Your task to perform on an android device: change notifications settings Image 0: 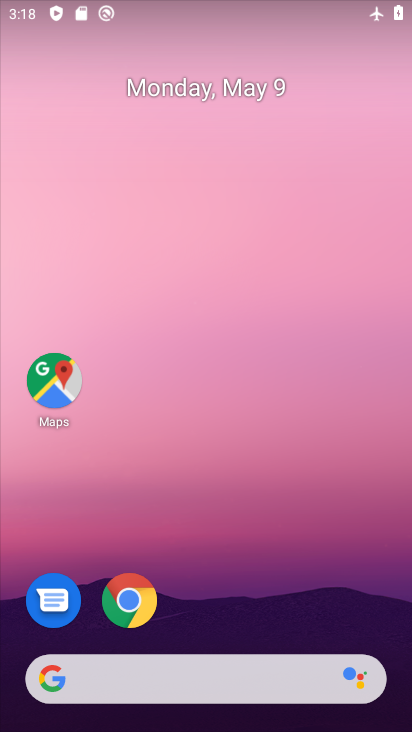
Step 0: drag from (233, 577) to (283, 159)
Your task to perform on an android device: change notifications settings Image 1: 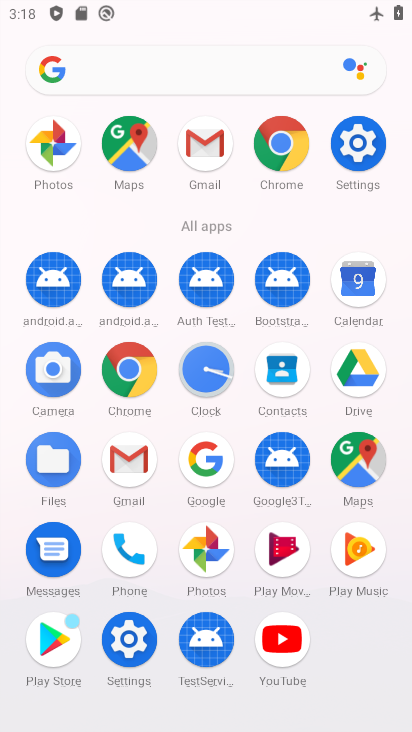
Step 1: click (131, 645)
Your task to perform on an android device: change notifications settings Image 2: 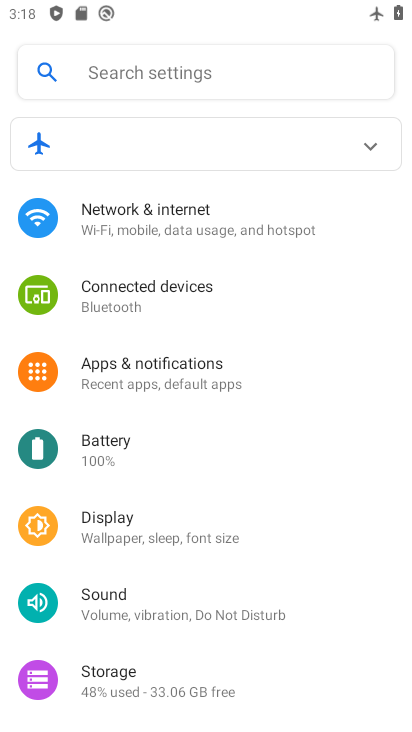
Step 2: click (194, 391)
Your task to perform on an android device: change notifications settings Image 3: 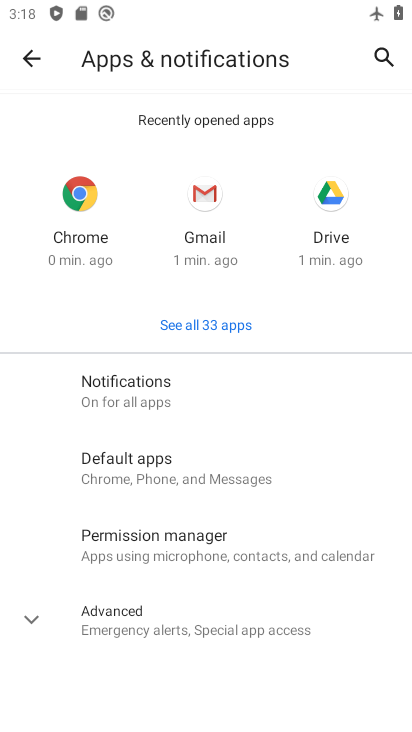
Step 3: click (184, 420)
Your task to perform on an android device: change notifications settings Image 4: 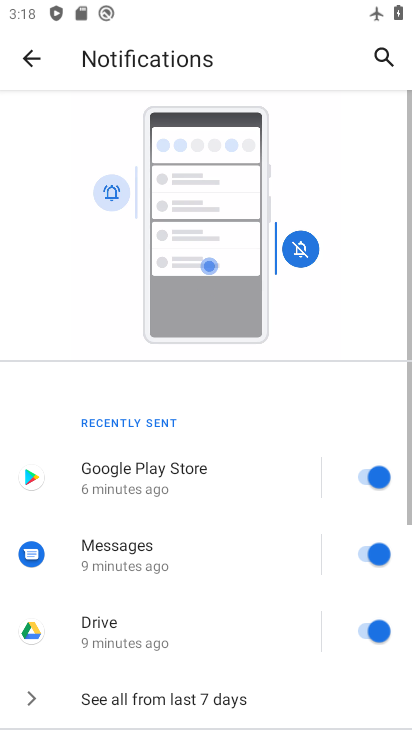
Step 4: drag from (312, 491) to (382, 247)
Your task to perform on an android device: change notifications settings Image 5: 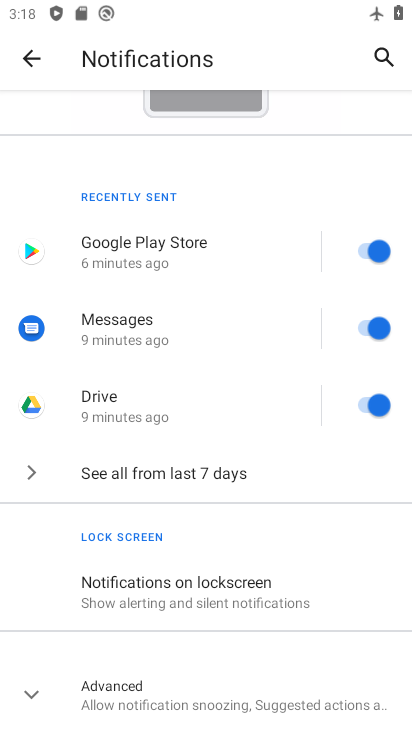
Step 5: click (368, 253)
Your task to perform on an android device: change notifications settings Image 6: 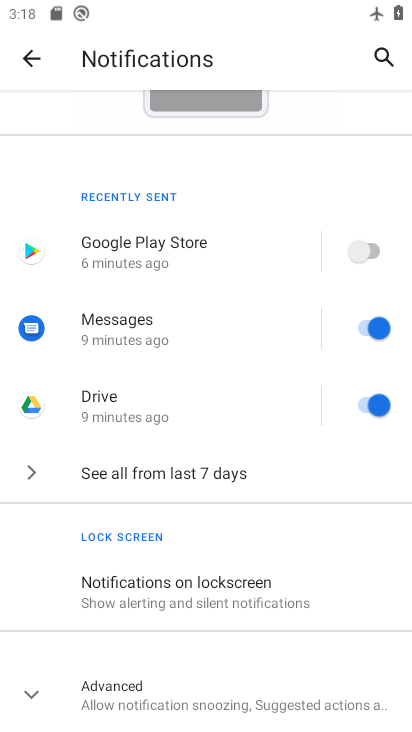
Step 6: click (355, 335)
Your task to perform on an android device: change notifications settings Image 7: 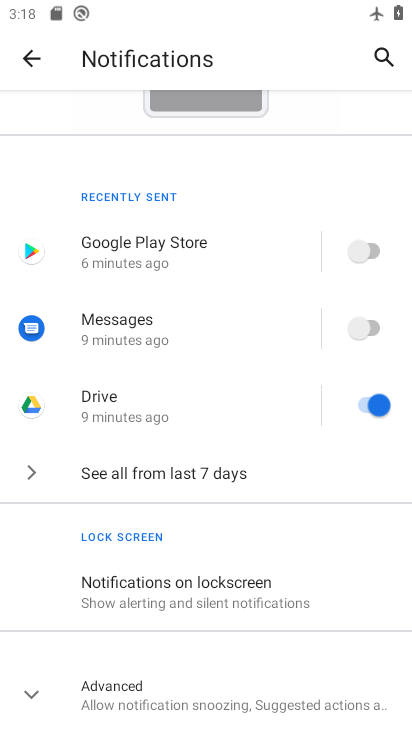
Step 7: click (351, 398)
Your task to perform on an android device: change notifications settings Image 8: 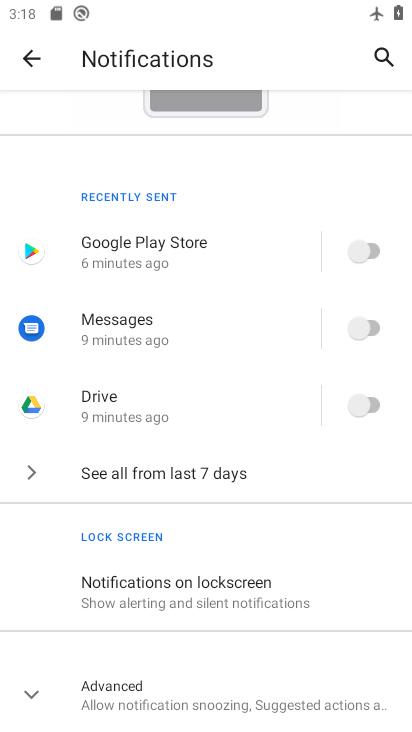
Step 8: click (276, 620)
Your task to perform on an android device: change notifications settings Image 9: 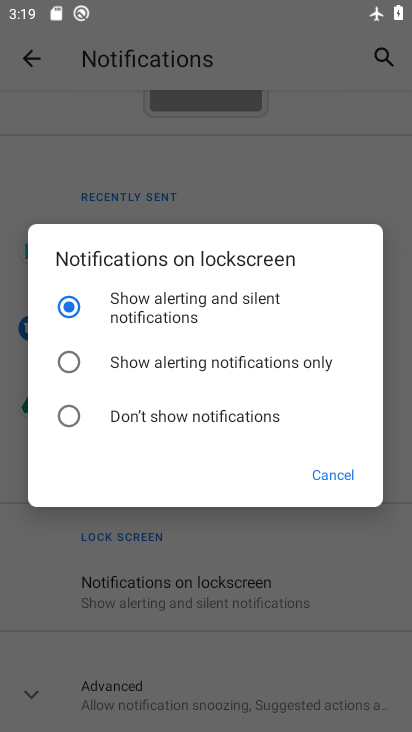
Step 9: click (140, 408)
Your task to perform on an android device: change notifications settings Image 10: 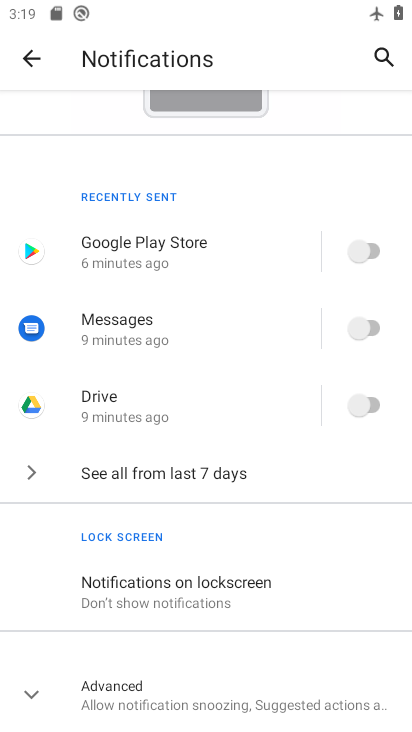
Step 10: task complete